Your task to perform on an android device: Toggle the flashlight Image 0: 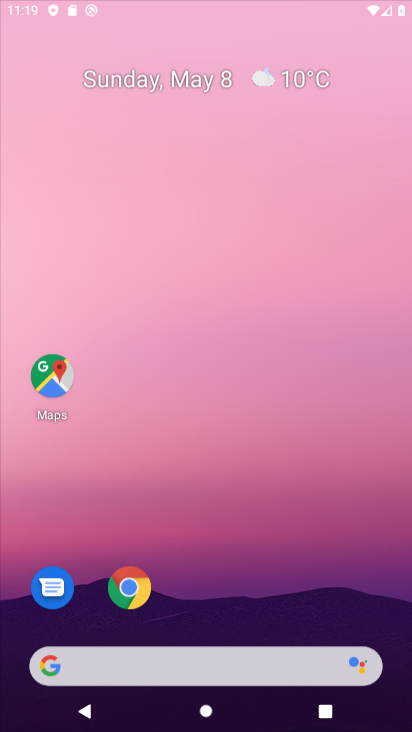
Step 0: click (292, 132)
Your task to perform on an android device: Toggle the flashlight Image 1: 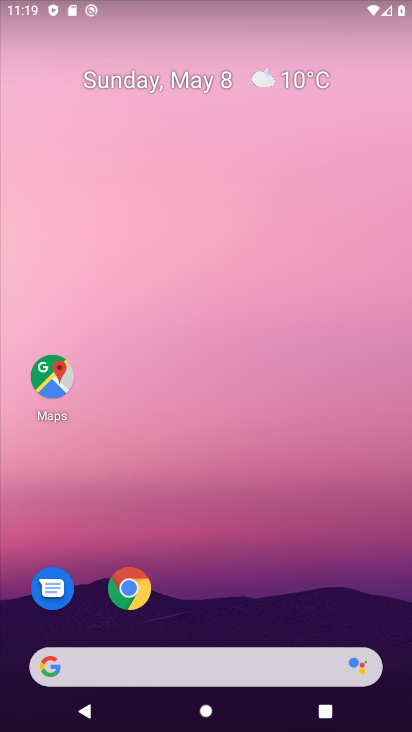
Step 1: drag from (245, 540) to (360, 95)
Your task to perform on an android device: Toggle the flashlight Image 2: 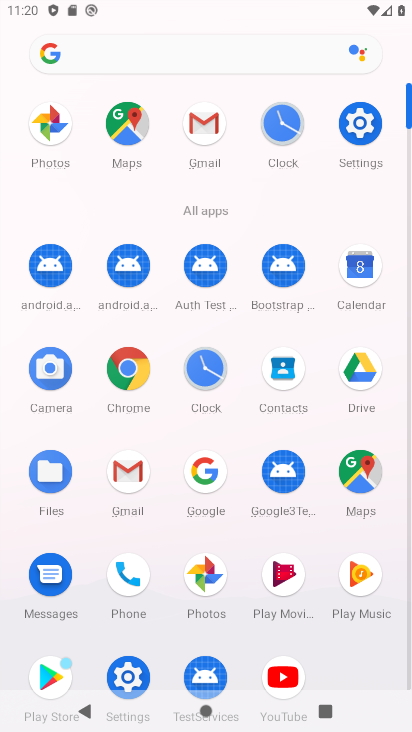
Step 2: click (368, 123)
Your task to perform on an android device: Toggle the flashlight Image 3: 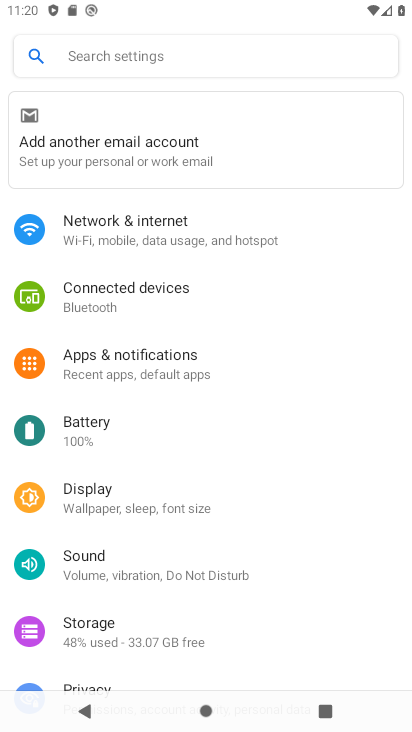
Step 3: click (146, 52)
Your task to perform on an android device: Toggle the flashlight Image 4: 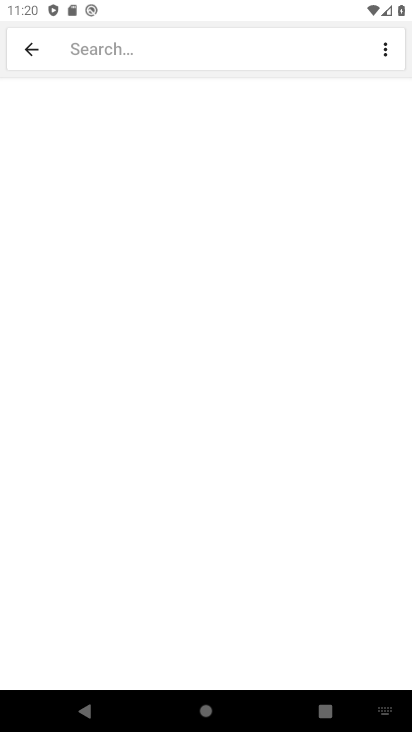
Step 4: type "flashlight"
Your task to perform on an android device: Toggle the flashlight Image 5: 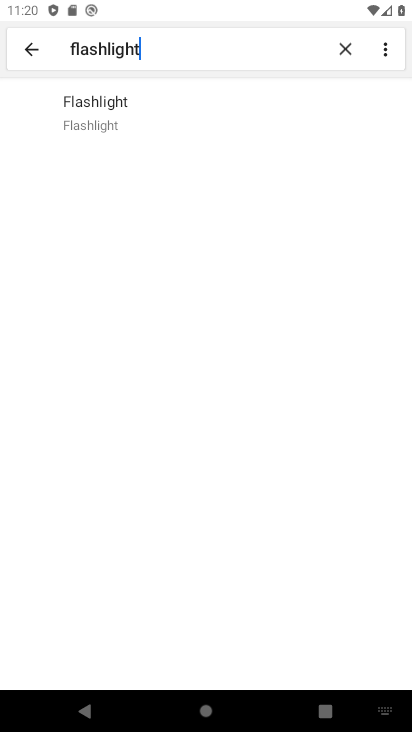
Step 5: click (135, 109)
Your task to perform on an android device: Toggle the flashlight Image 6: 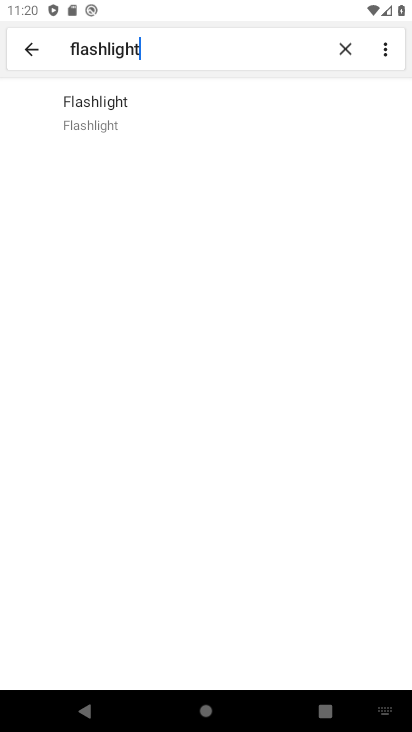
Step 6: click (126, 109)
Your task to perform on an android device: Toggle the flashlight Image 7: 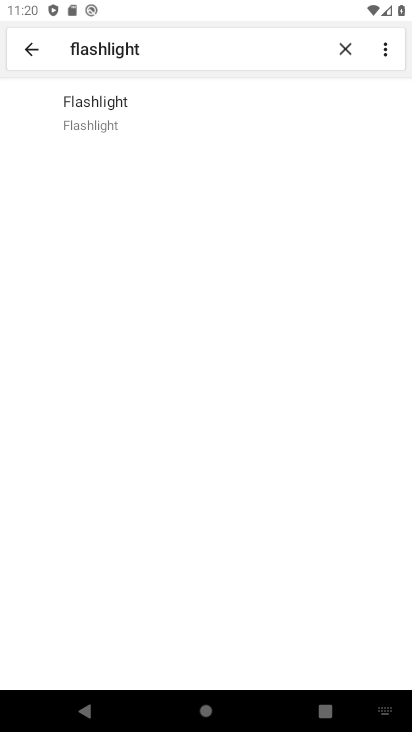
Step 7: task complete